Your task to perform on an android device: Add "razer huntsman" to the cart on amazon, then select checkout. Image 0: 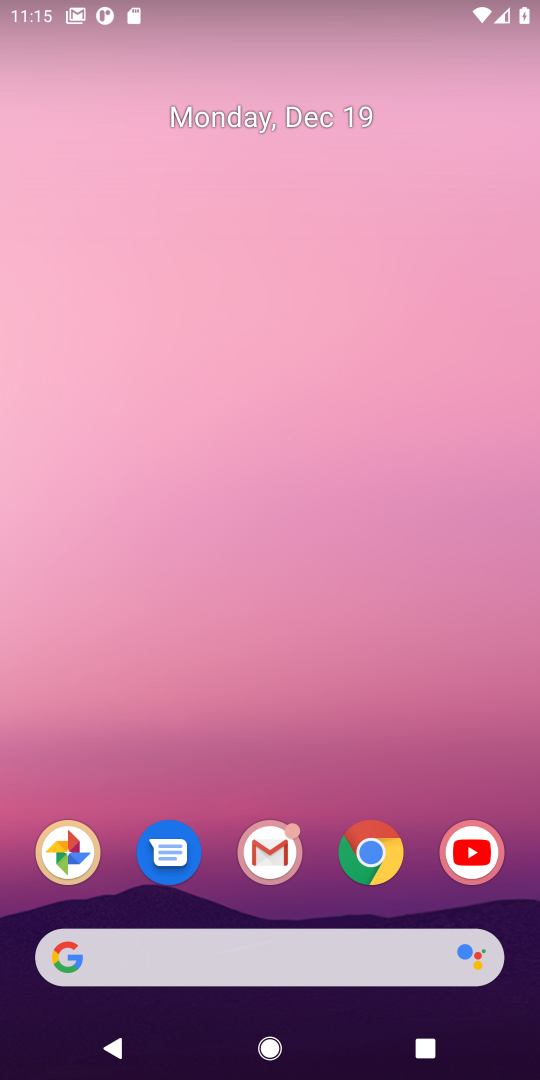
Step 0: click (374, 856)
Your task to perform on an android device: Add "razer huntsman" to the cart on amazon, then select checkout. Image 1: 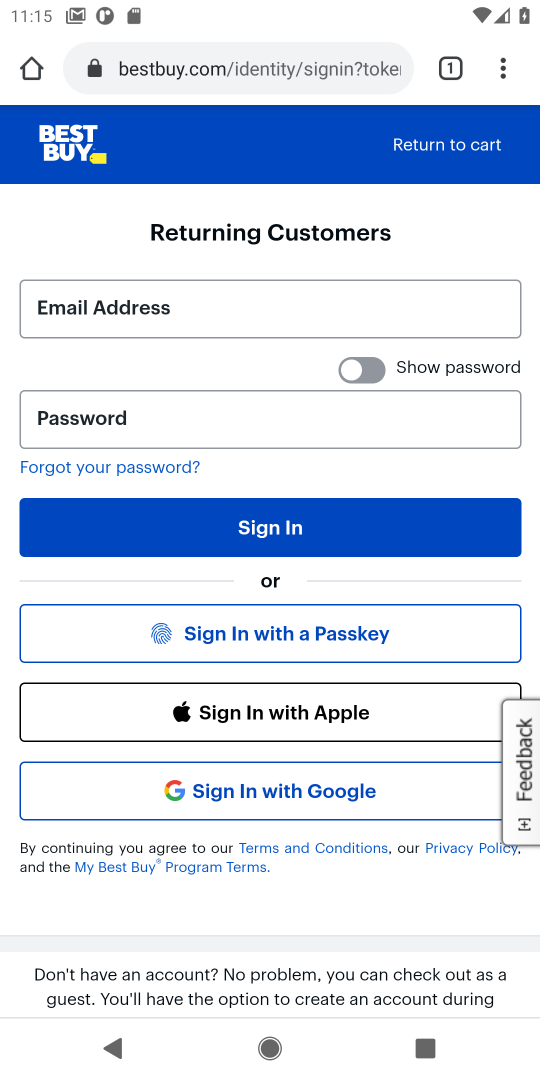
Step 1: click (232, 62)
Your task to perform on an android device: Add "razer huntsman" to the cart on amazon, then select checkout. Image 2: 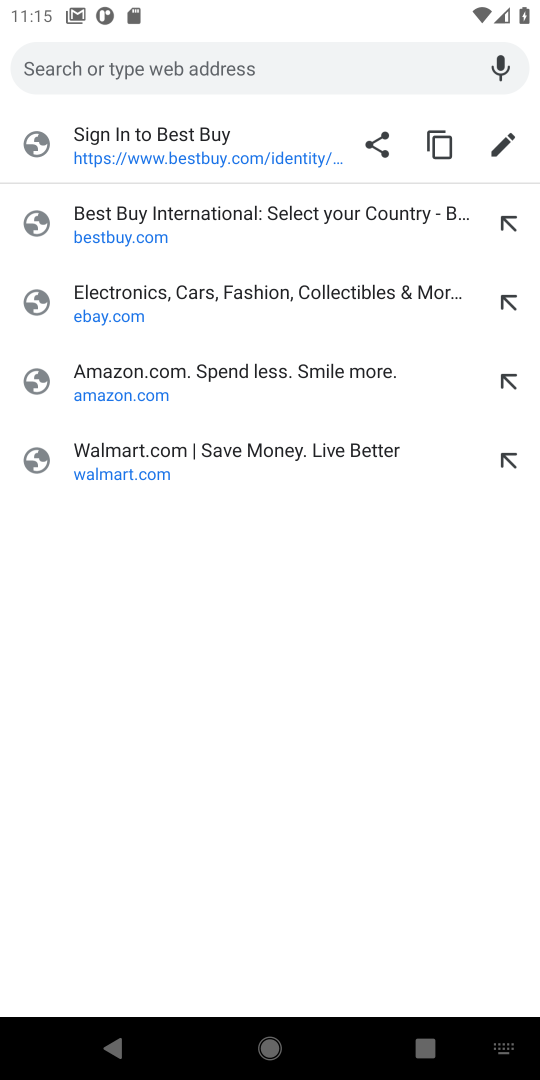
Step 2: click (114, 381)
Your task to perform on an android device: Add "razer huntsman" to the cart on amazon, then select checkout. Image 3: 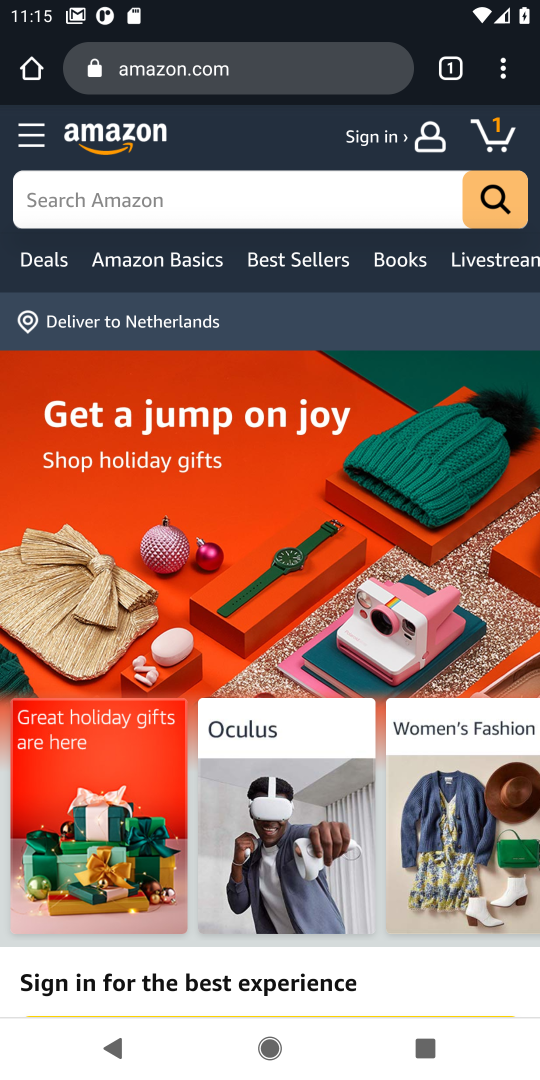
Step 3: click (98, 208)
Your task to perform on an android device: Add "razer huntsman" to the cart on amazon, then select checkout. Image 4: 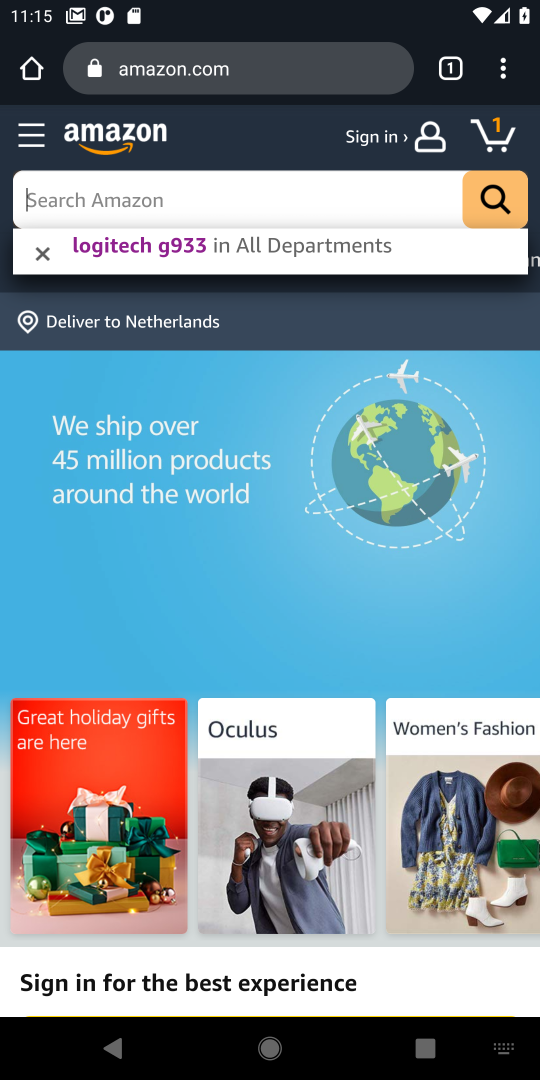
Step 4: type "razer huntsman"
Your task to perform on an android device: Add "razer huntsman" to the cart on amazon, then select checkout. Image 5: 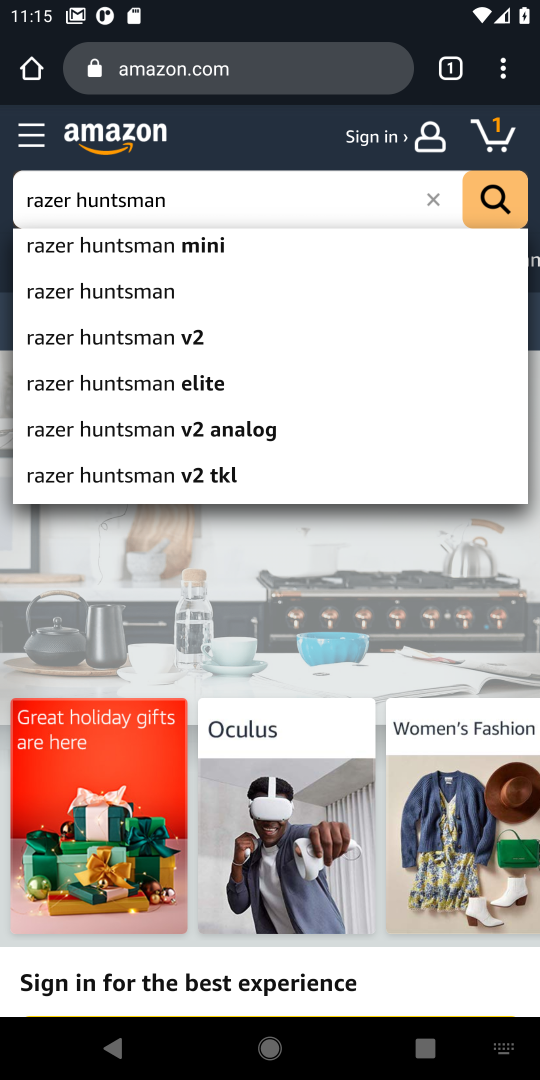
Step 5: click (113, 298)
Your task to perform on an android device: Add "razer huntsman" to the cart on amazon, then select checkout. Image 6: 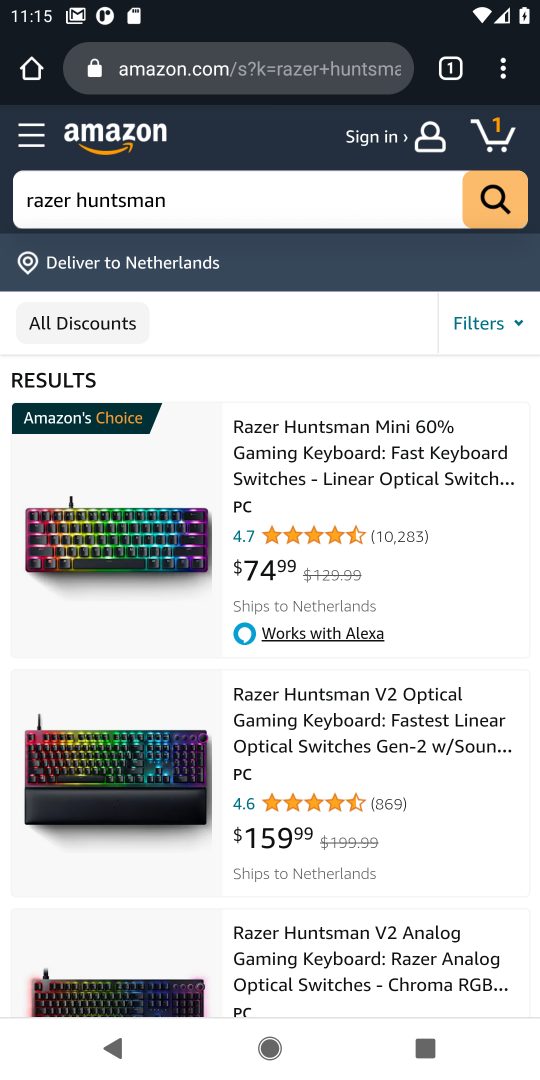
Step 6: click (293, 462)
Your task to perform on an android device: Add "razer huntsman" to the cart on amazon, then select checkout. Image 7: 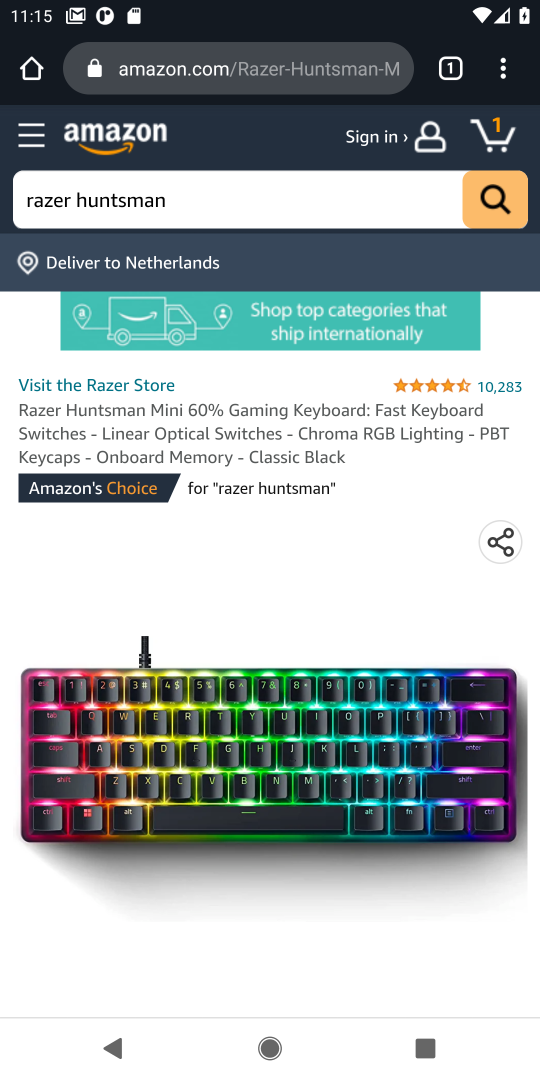
Step 7: drag from (290, 814) to (290, 360)
Your task to perform on an android device: Add "razer huntsman" to the cart on amazon, then select checkout. Image 8: 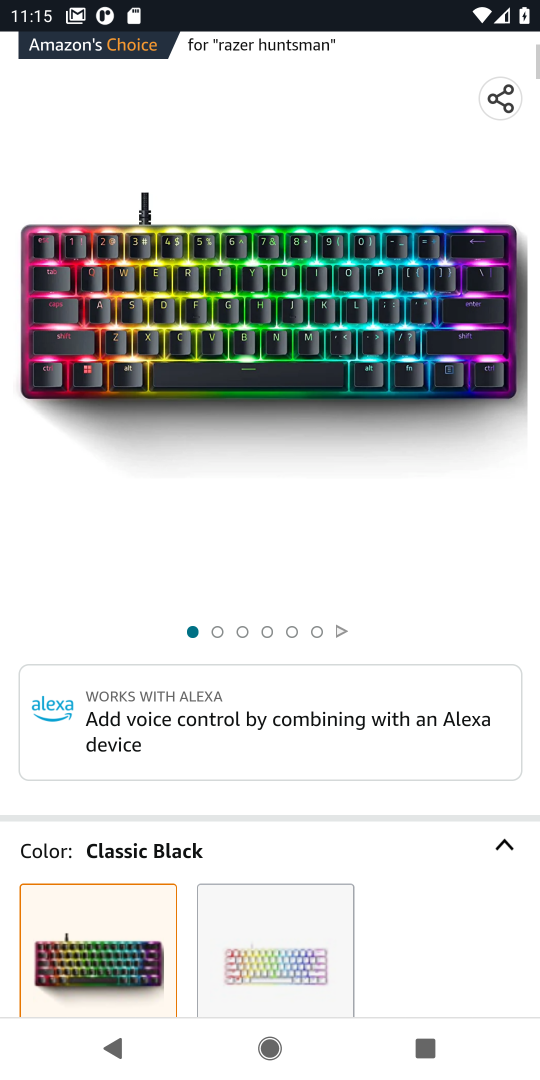
Step 8: drag from (285, 809) to (288, 313)
Your task to perform on an android device: Add "razer huntsman" to the cart on amazon, then select checkout. Image 9: 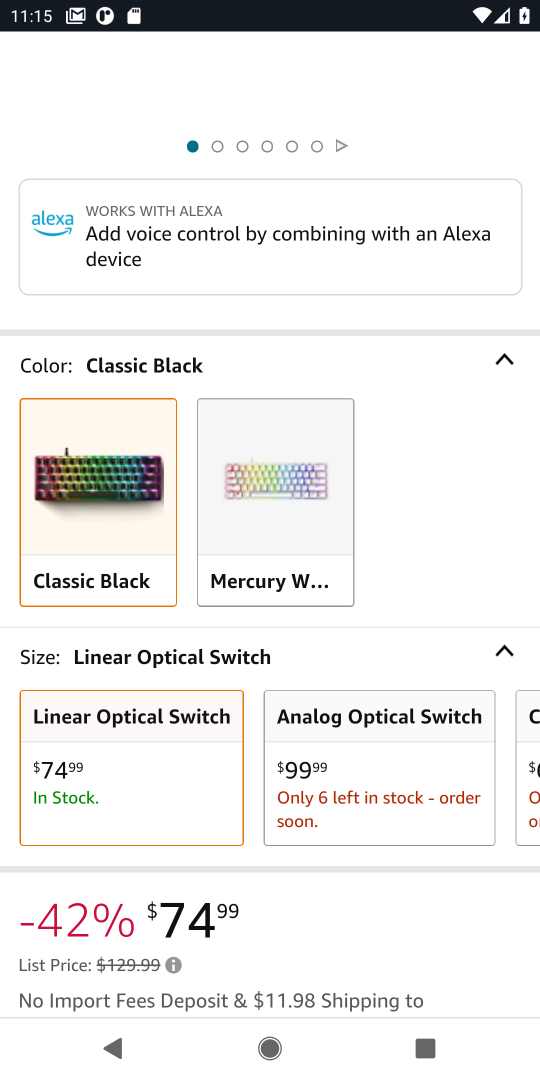
Step 9: drag from (265, 641) to (244, 354)
Your task to perform on an android device: Add "razer huntsman" to the cart on amazon, then select checkout. Image 10: 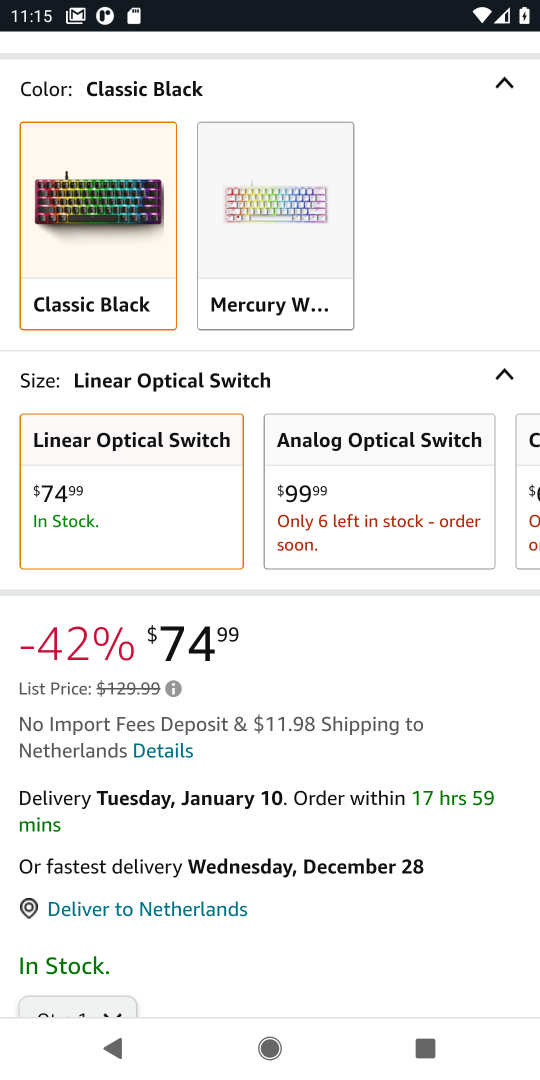
Step 10: drag from (226, 717) to (236, 339)
Your task to perform on an android device: Add "razer huntsman" to the cart on amazon, then select checkout. Image 11: 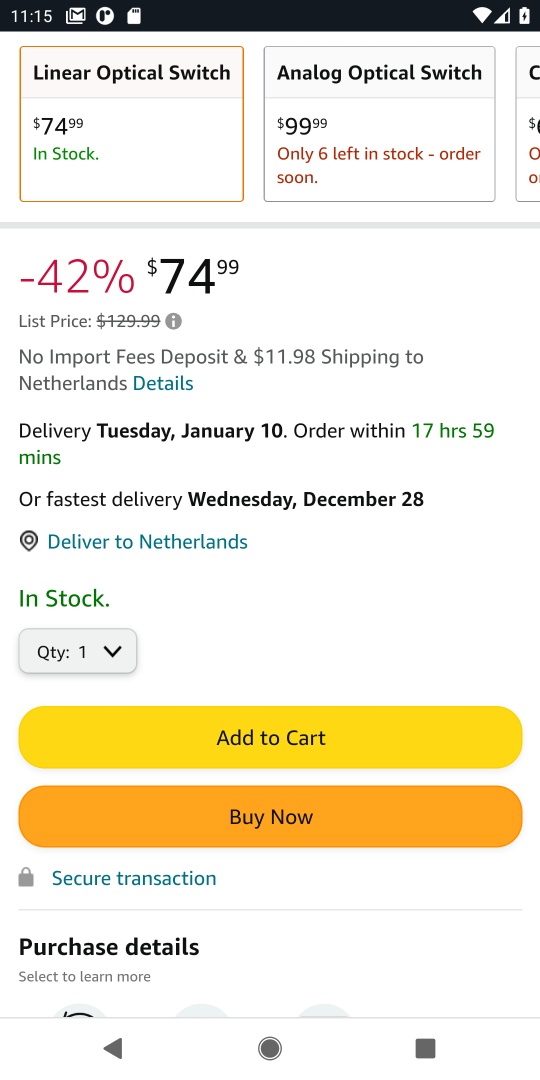
Step 11: click (249, 739)
Your task to perform on an android device: Add "razer huntsman" to the cart on amazon, then select checkout. Image 12: 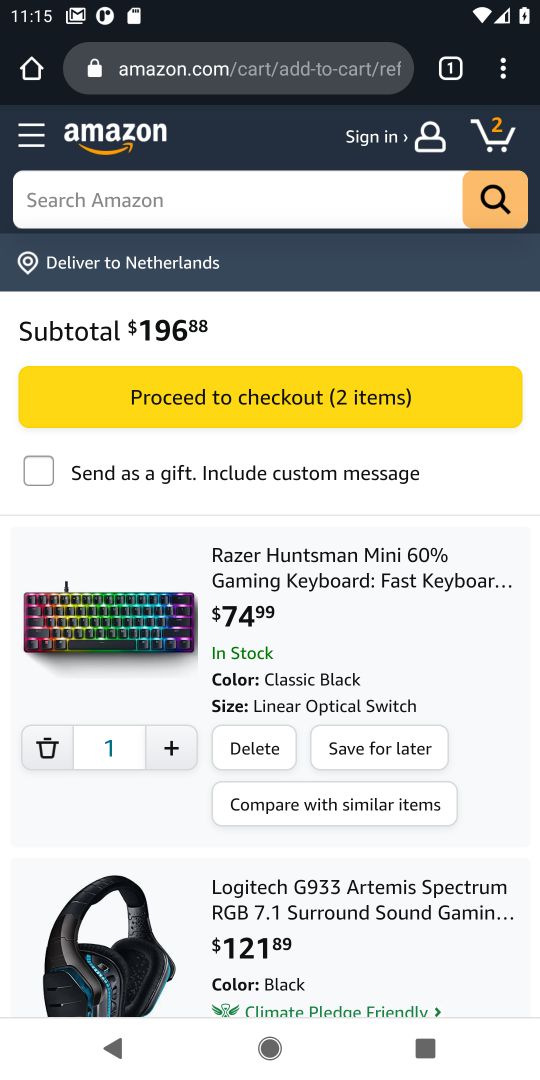
Step 12: click (241, 401)
Your task to perform on an android device: Add "razer huntsman" to the cart on amazon, then select checkout. Image 13: 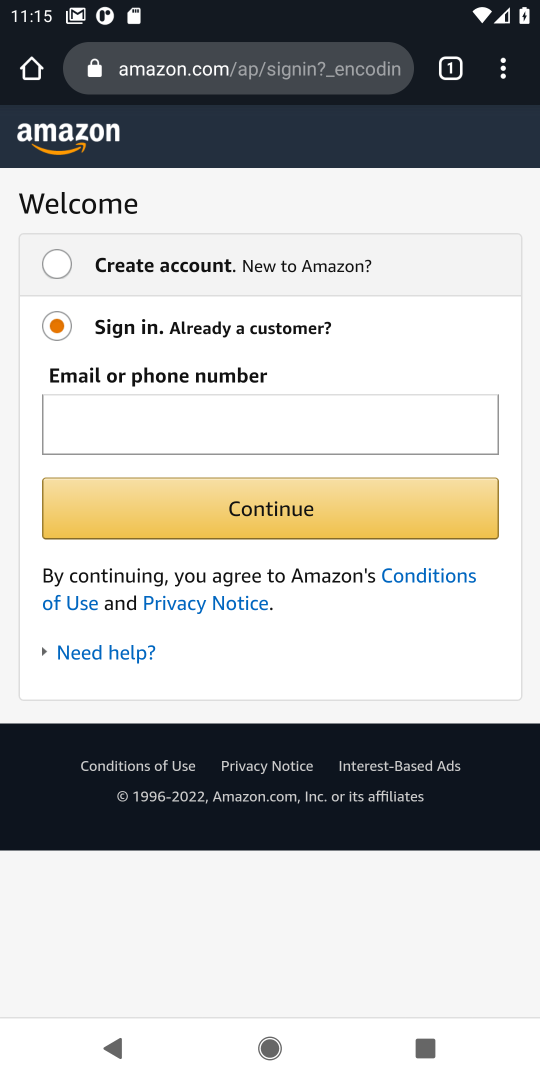
Step 13: task complete